Your task to perform on an android device: Open Google Maps and go to "Timeline" Image 0: 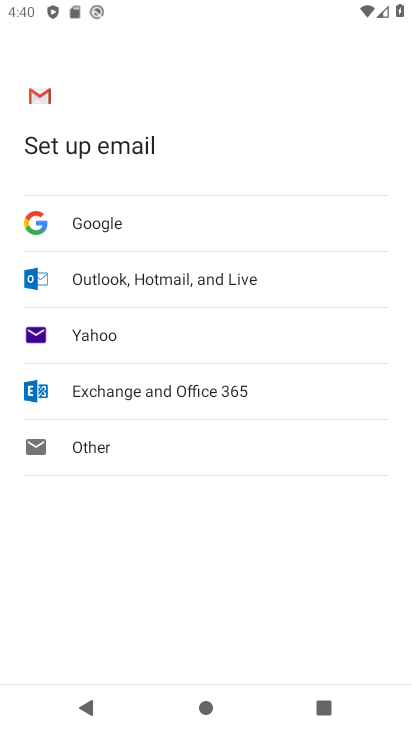
Step 0: press back button
Your task to perform on an android device: Open Google Maps and go to "Timeline" Image 1: 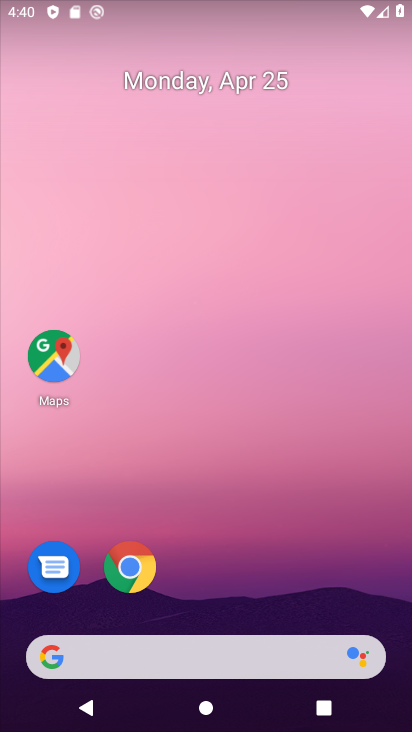
Step 1: click (47, 348)
Your task to perform on an android device: Open Google Maps and go to "Timeline" Image 2: 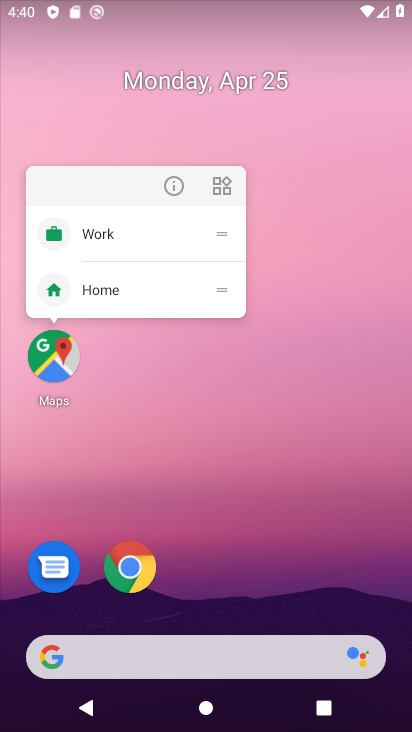
Step 2: click (48, 346)
Your task to perform on an android device: Open Google Maps and go to "Timeline" Image 3: 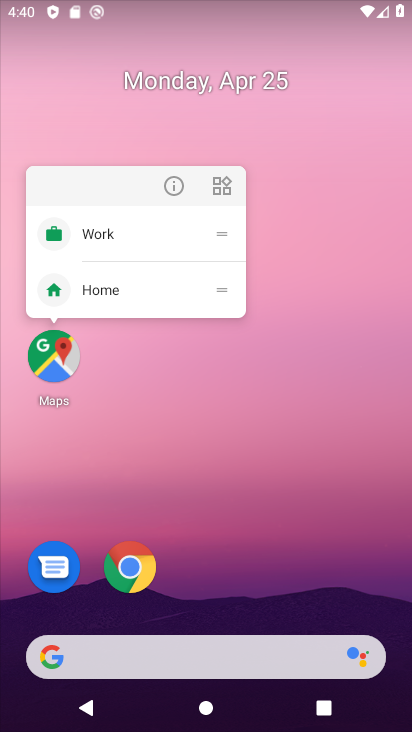
Step 3: click (54, 357)
Your task to perform on an android device: Open Google Maps and go to "Timeline" Image 4: 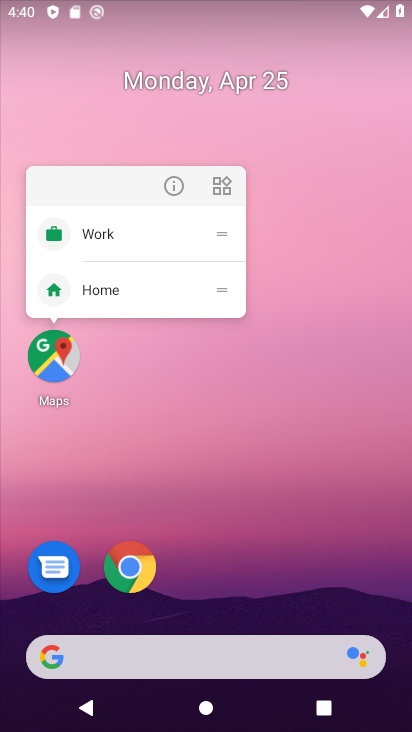
Step 4: click (57, 356)
Your task to perform on an android device: Open Google Maps and go to "Timeline" Image 5: 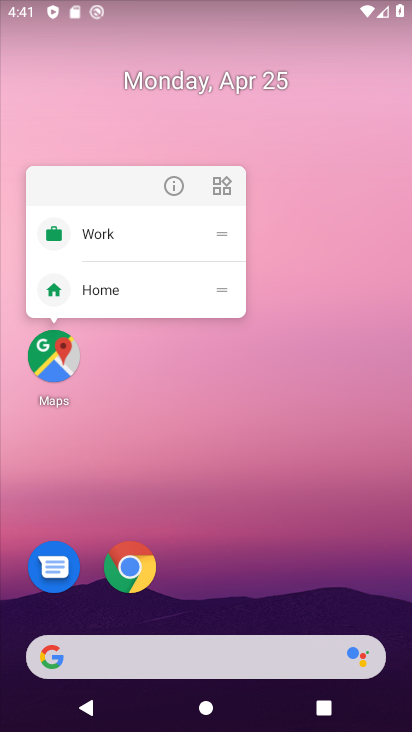
Step 5: click (55, 357)
Your task to perform on an android device: Open Google Maps and go to "Timeline" Image 6: 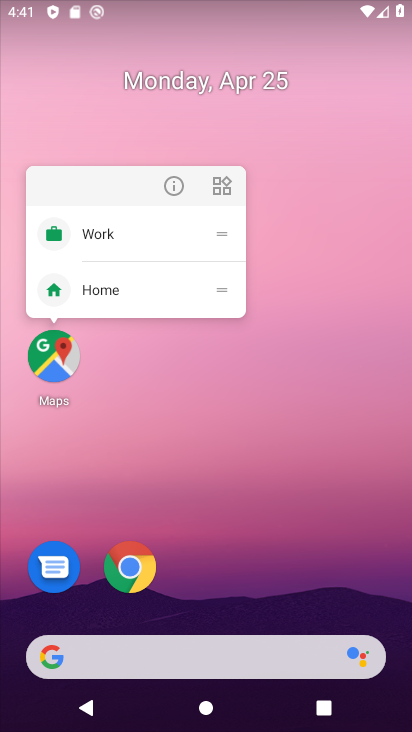
Step 6: click (56, 352)
Your task to perform on an android device: Open Google Maps and go to "Timeline" Image 7: 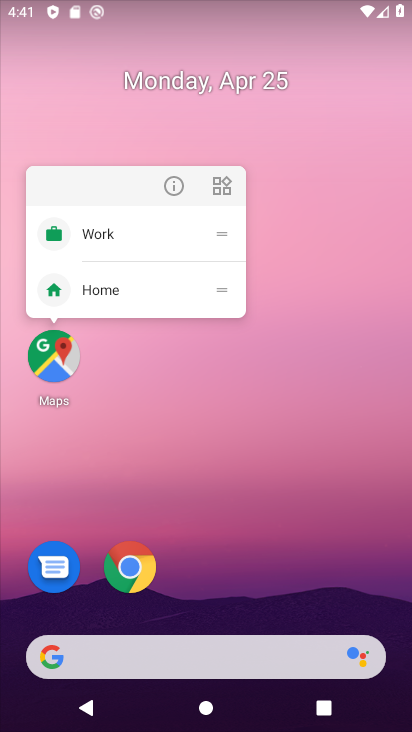
Step 7: click (53, 349)
Your task to perform on an android device: Open Google Maps and go to "Timeline" Image 8: 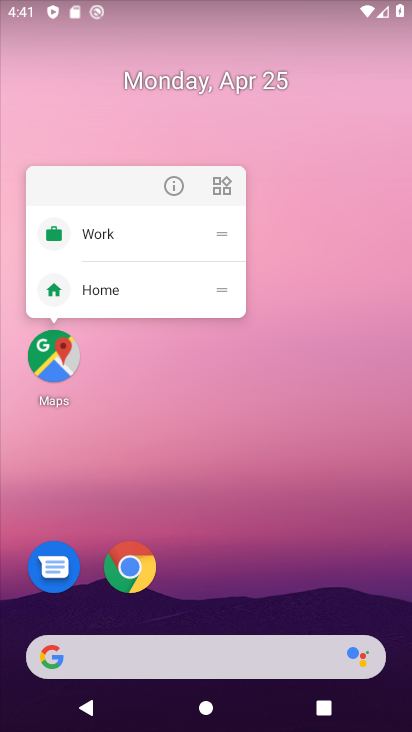
Step 8: click (63, 360)
Your task to perform on an android device: Open Google Maps and go to "Timeline" Image 9: 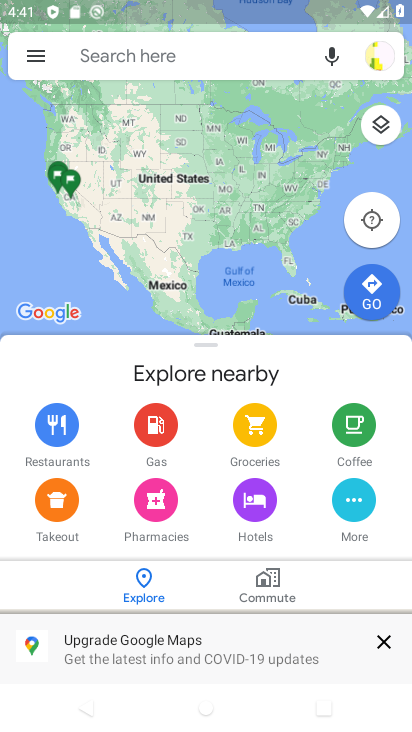
Step 9: click (30, 53)
Your task to perform on an android device: Open Google Maps and go to "Timeline" Image 10: 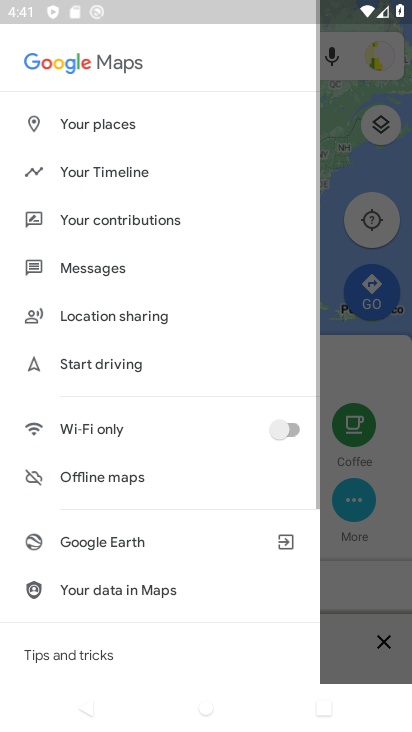
Step 10: click (128, 166)
Your task to perform on an android device: Open Google Maps and go to "Timeline" Image 11: 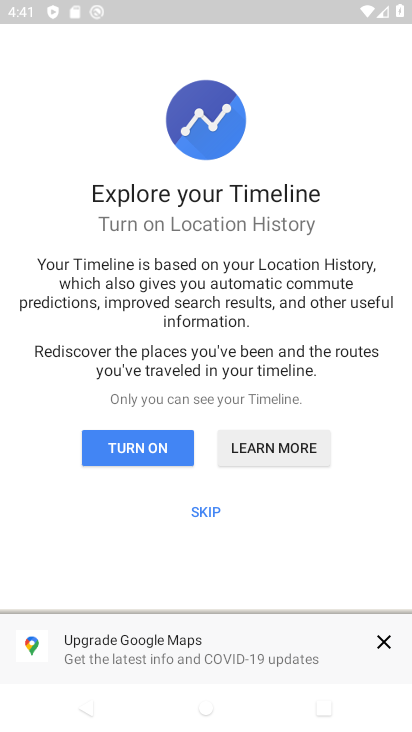
Step 11: click (197, 516)
Your task to perform on an android device: Open Google Maps and go to "Timeline" Image 12: 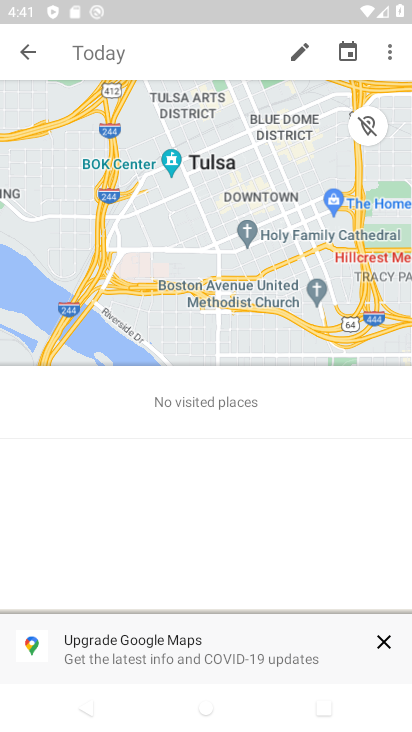
Step 12: task complete